Your task to perform on an android device: change the clock style Image 0: 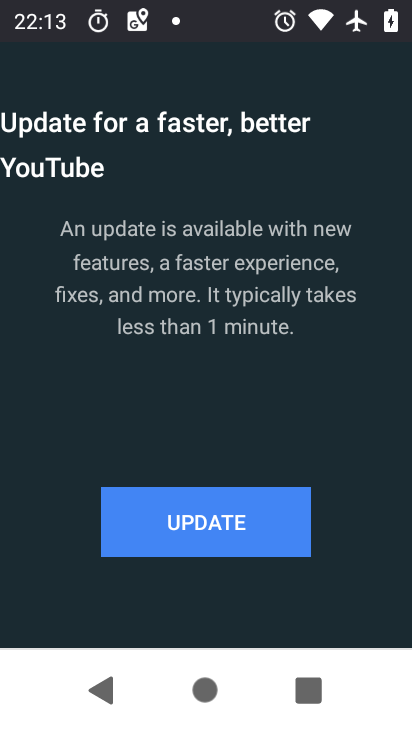
Step 0: press home button
Your task to perform on an android device: change the clock style Image 1: 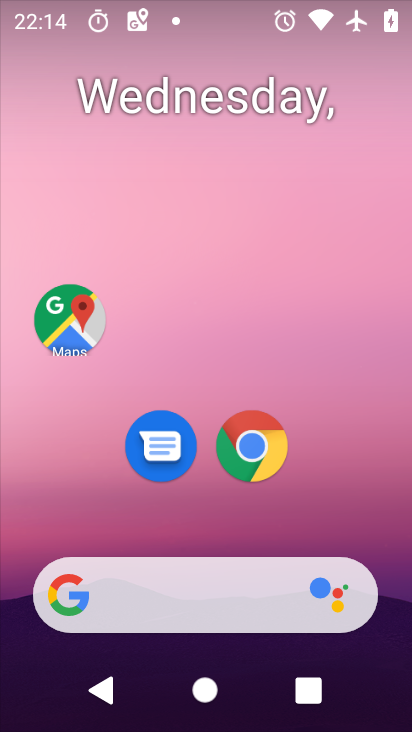
Step 1: drag from (228, 600) to (347, 143)
Your task to perform on an android device: change the clock style Image 2: 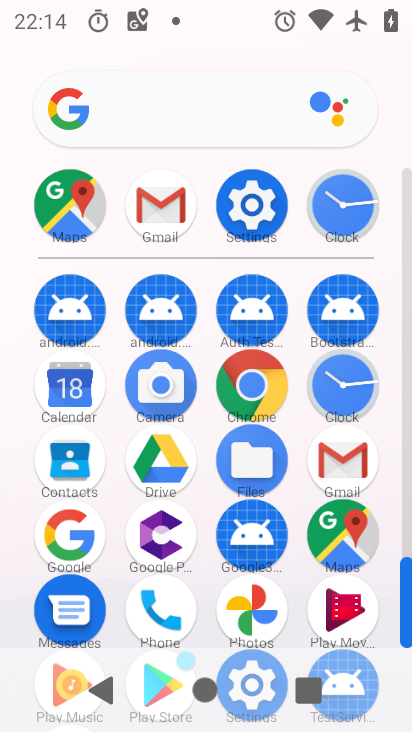
Step 2: click (355, 211)
Your task to perform on an android device: change the clock style Image 3: 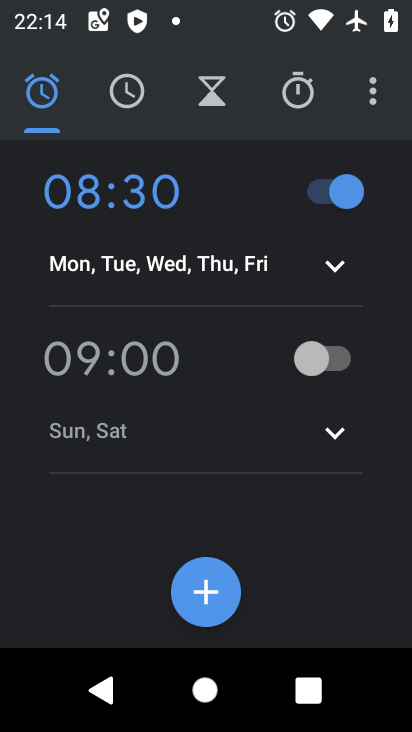
Step 3: click (377, 99)
Your task to perform on an android device: change the clock style Image 4: 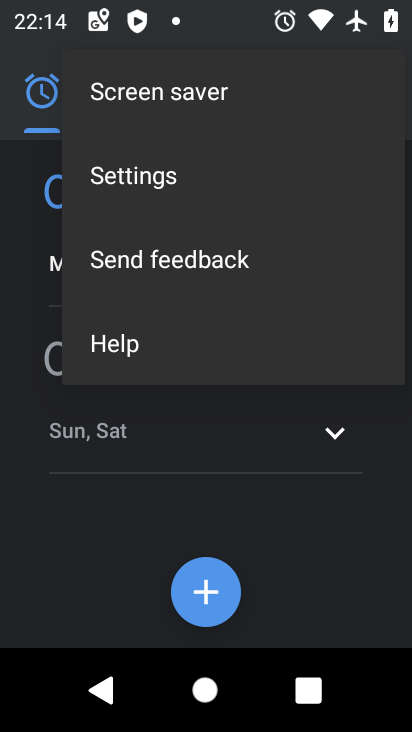
Step 4: click (131, 176)
Your task to perform on an android device: change the clock style Image 5: 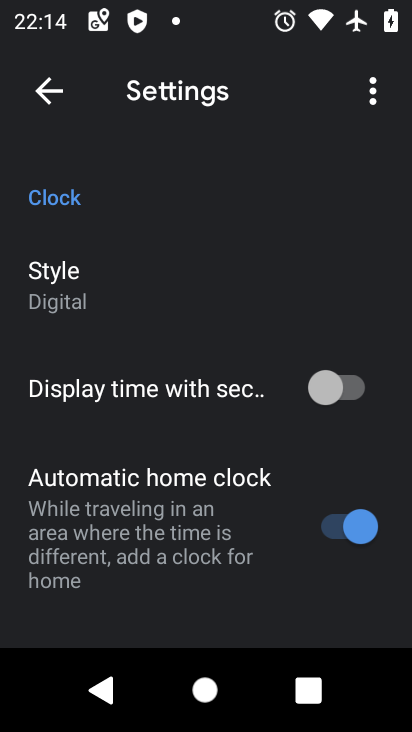
Step 5: click (80, 294)
Your task to perform on an android device: change the clock style Image 6: 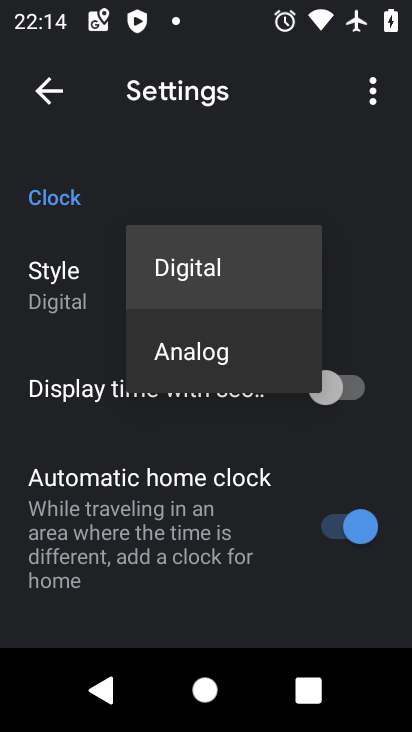
Step 6: click (194, 360)
Your task to perform on an android device: change the clock style Image 7: 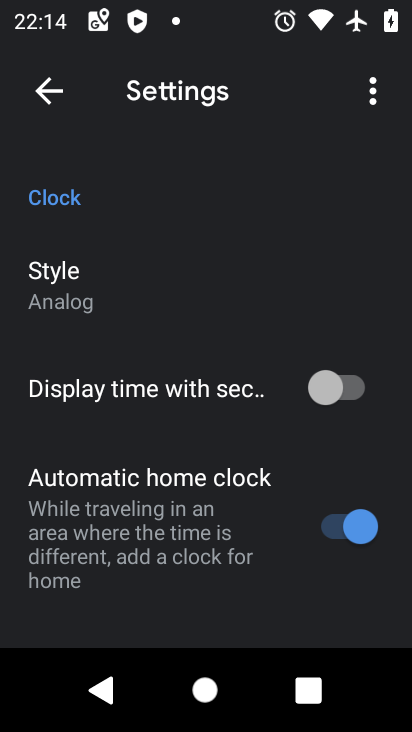
Step 7: task complete